Your task to perform on an android device: turn off location Image 0: 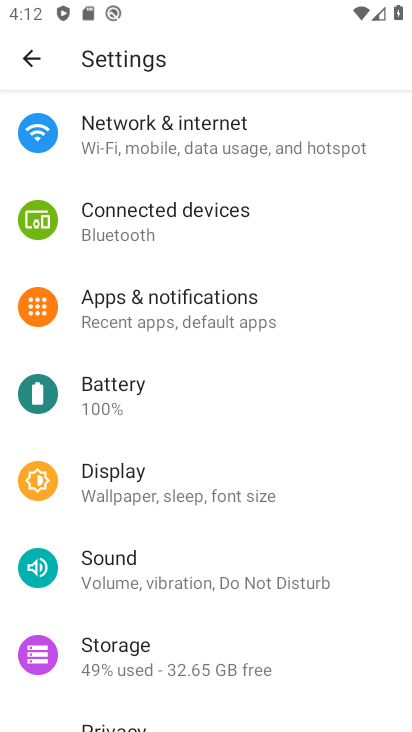
Step 0: drag from (336, 584) to (352, 327)
Your task to perform on an android device: turn off location Image 1: 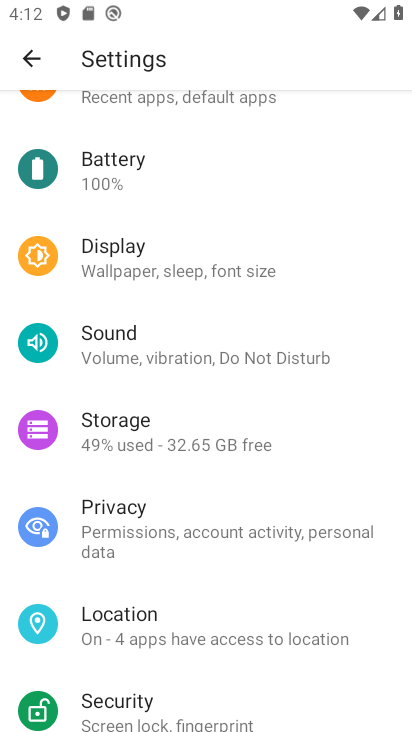
Step 1: click (105, 635)
Your task to perform on an android device: turn off location Image 2: 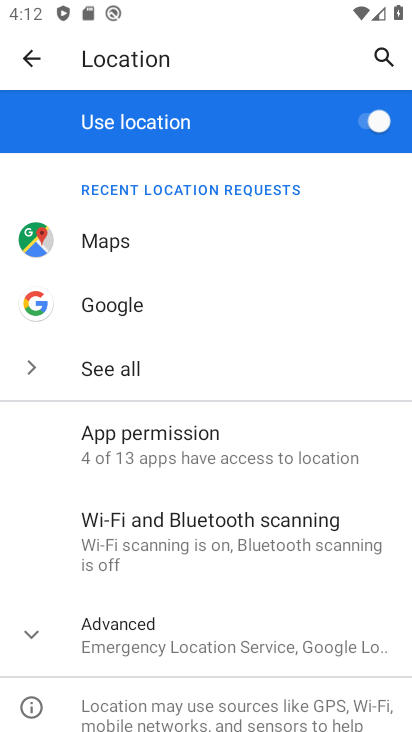
Step 2: click (373, 122)
Your task to perform on an android device: turn off location Image 3: 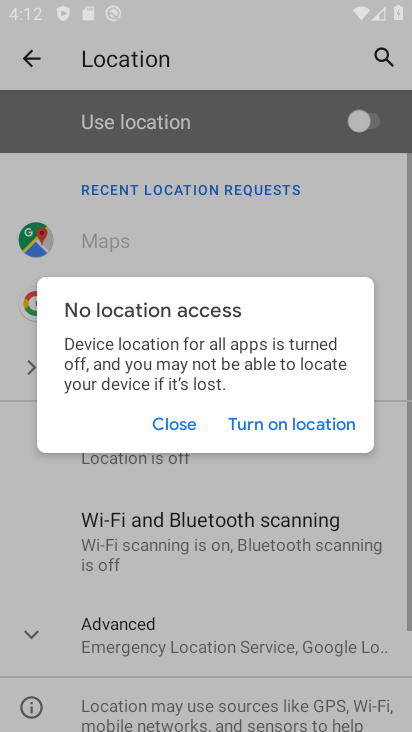
Step 3: task complete